Your task to perform on an android device: turn off location history Image 0: 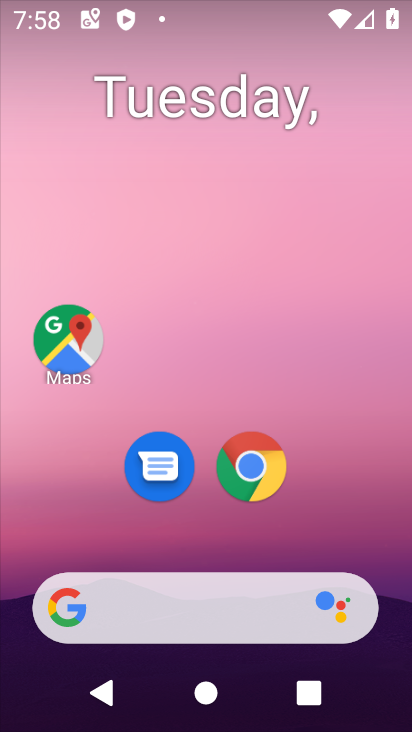
Step 0: drag from (353, 534) to (320, 95)
Your task to perform on an android device: turn off location history Image 1: 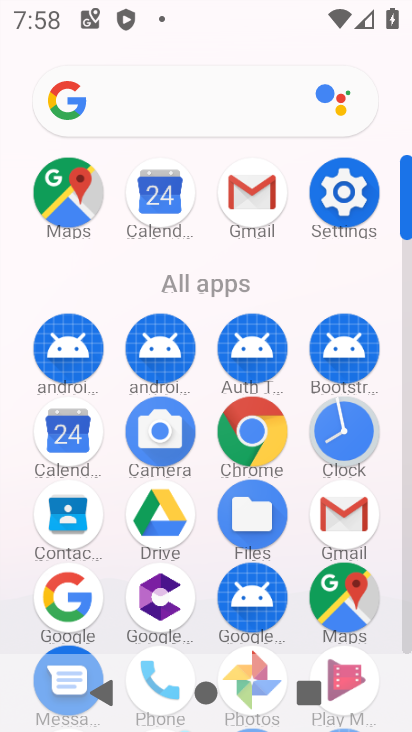
Step 1: click (358, 223)
Your task to perform on an android device: turn off location history Image 2: 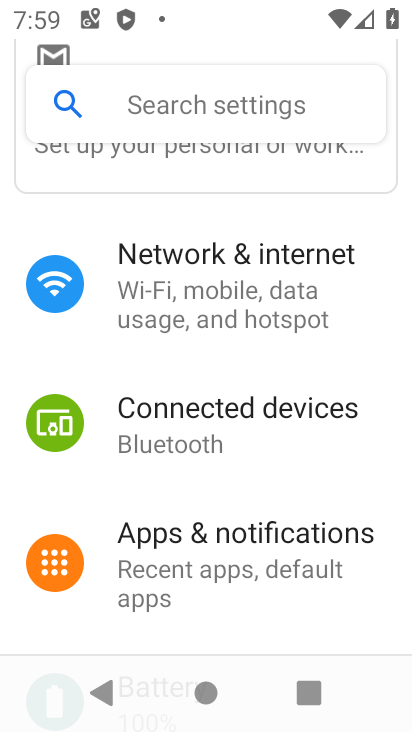
Step 2: task complete